Your task to perform on an android device: turn off airplane mode Image 0: 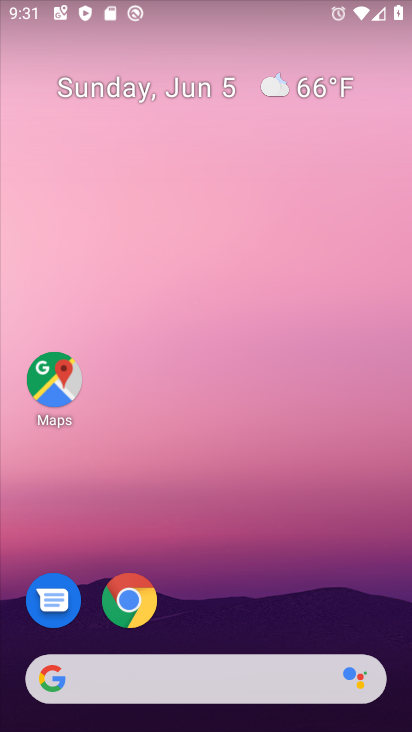
Step 0: click (343, 602)
Your task to perform on an android device: turn off airplane mode Image 1: 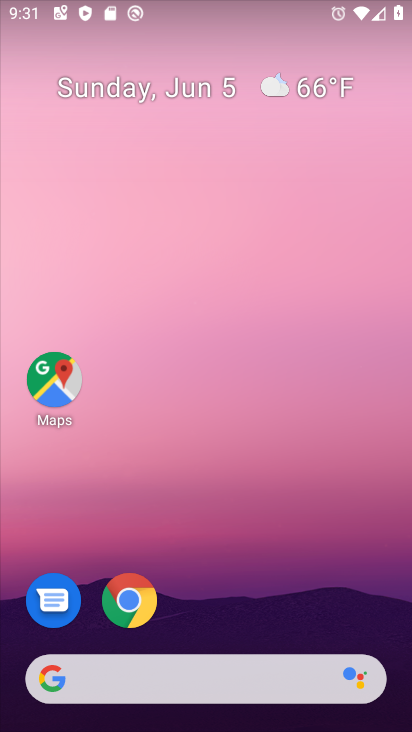
Step 1: task complete